Your task to perform on an android device: Open wifi settings Image 0: 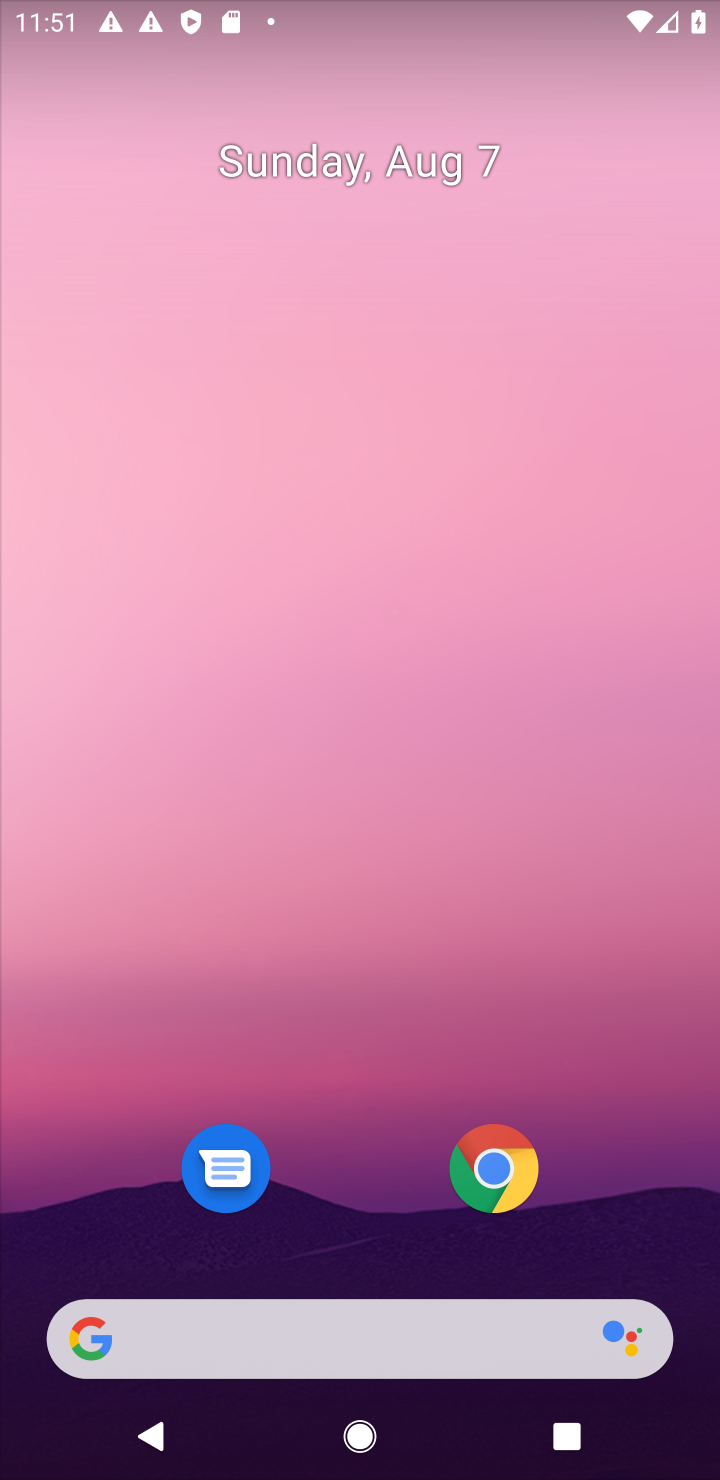
Step 0: drag from (448, 1249) to (491, 89)
Your task to perform on an android device: Open wifi settings Image 1: 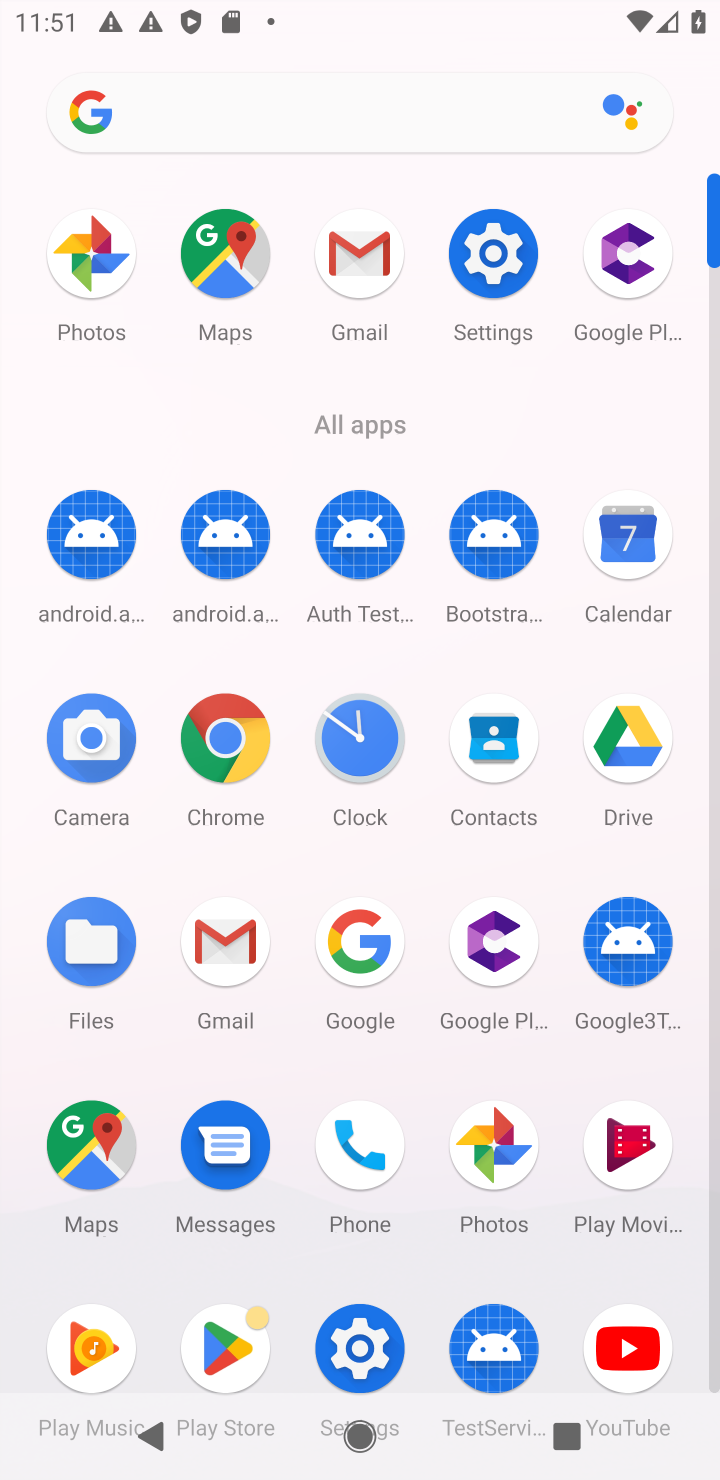
Step 1: click (499, 359)
Your task to perform on an android device: Open wifi settings Image 2: 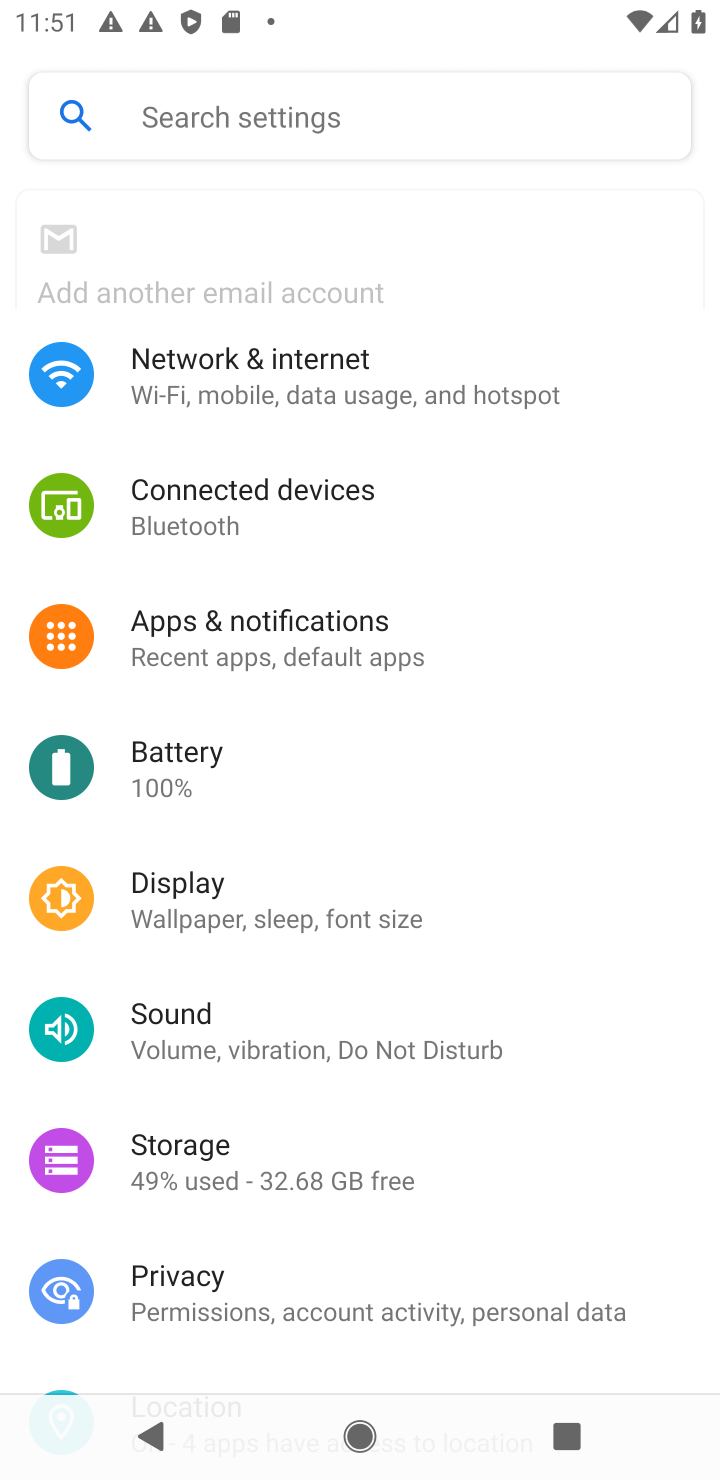
Step 2: task complete